Your task to perform on an android device: change alarm snooze length Image 0: 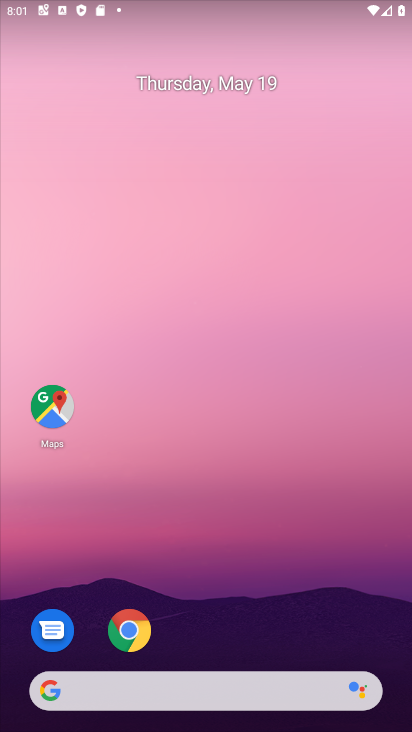
Step 0: drag from (388, 639) to (282, 96)
Your task to perform on an android device: change alarm snooze length Image 1: 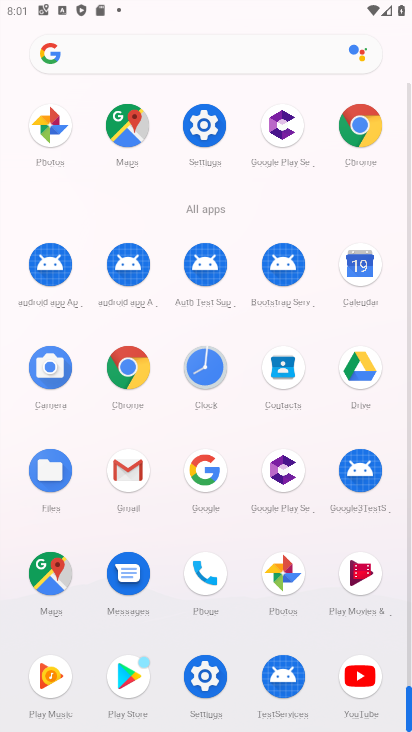
Step 1: click (203, 369)
Your task to perform on an android device: change alarm snooze length Image 2: 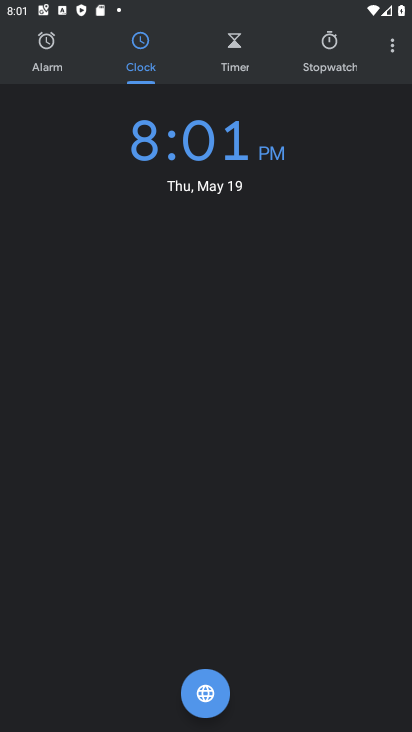
Step 2: click (395, 50)
Your task to perform on an android device: change alarm snooze length Image 3: 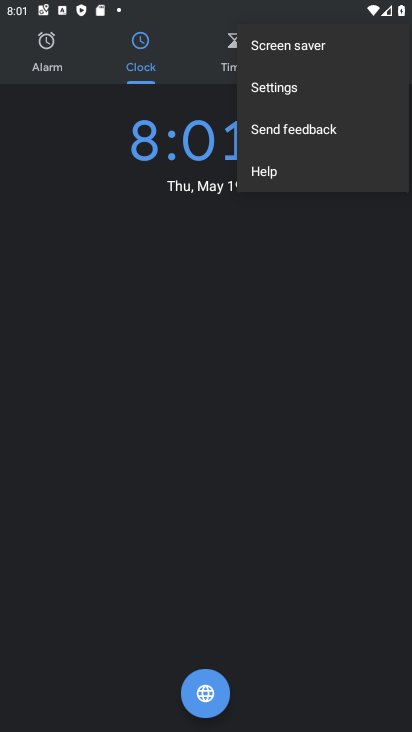
Step 3: click (274, 80)
Your task to perform on an android device: change alarm snooze length Image 4: 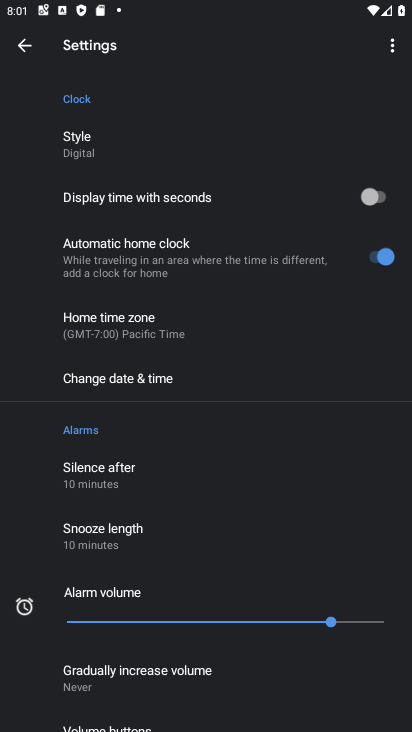
Step 4: click (98, 525)
Your task to perform on an android device: change alarm snooze length Image 5: 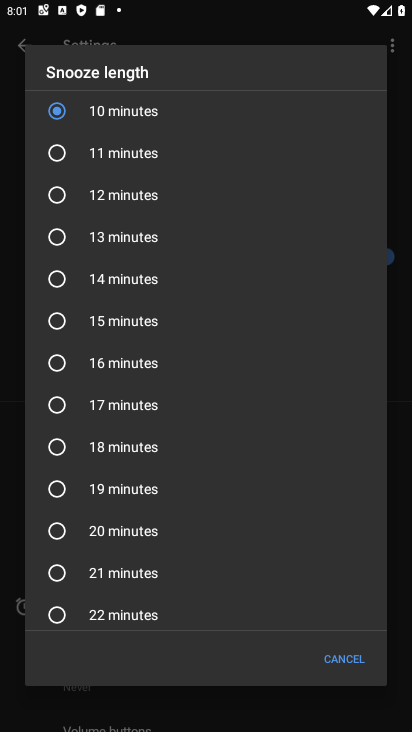
Step 5: click (54, 319)
Your task to perform on an android device: change alarm snooze length Image 6: 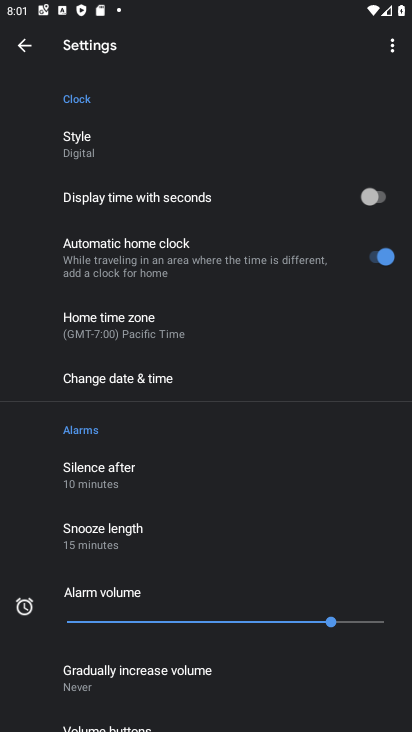
Step 6: task complete